Your task to perform on an android device: delete the emails in spam in the gmail app Image 0: 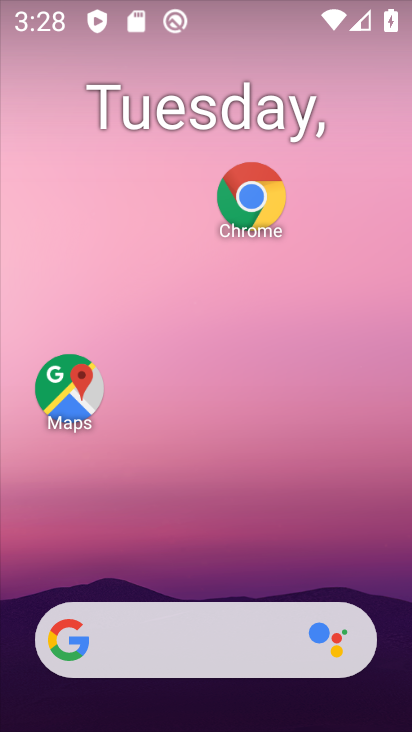
Step 0: drag from (212, 593) to (253, 1)
Your task to perform on an android device: delete the emails in spam in the gmail app Image 1: 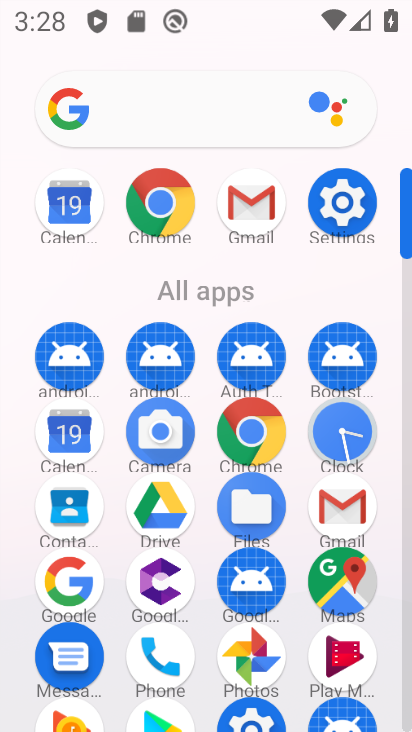
Step 1: click (337, 510)
Your task to perform on an android device: delete the emails in spam in the gmail app Image 2: 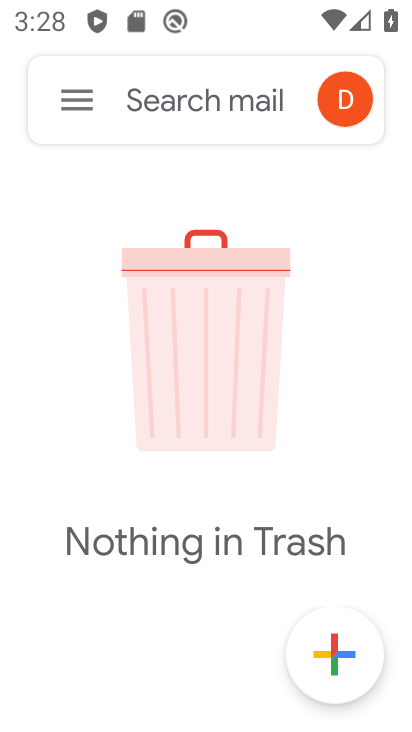
Step 2: click (74, 106)
Your task to perform on an android device: delete the emails in spam in the gmail app Image 3: 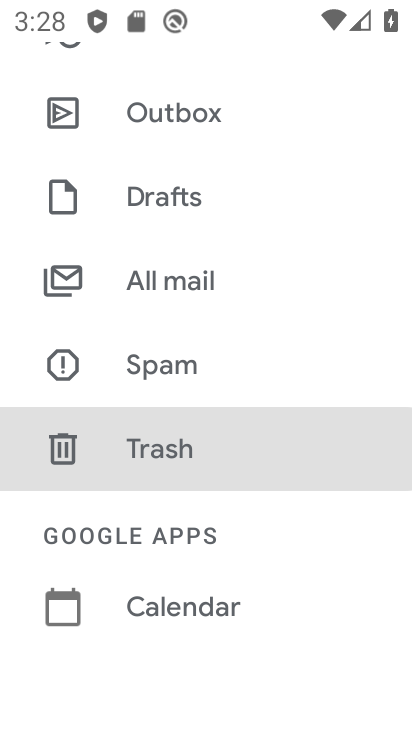
Step 3: click (160, 357)
Your task to perform on an android device: delete the emails in spam in the gmail app Image 4: 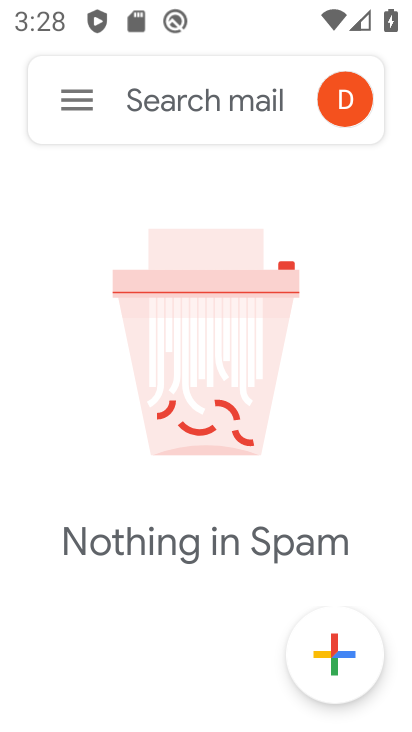
Step 4: task complete